Your task to perform on an android device: Go to notification settings Image 0: 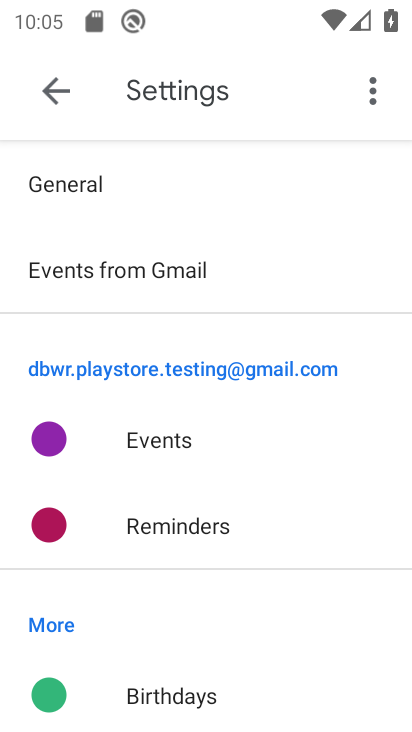
Step 0: press home button
Your task to perform on an android device: Go to notification settings Image 1: 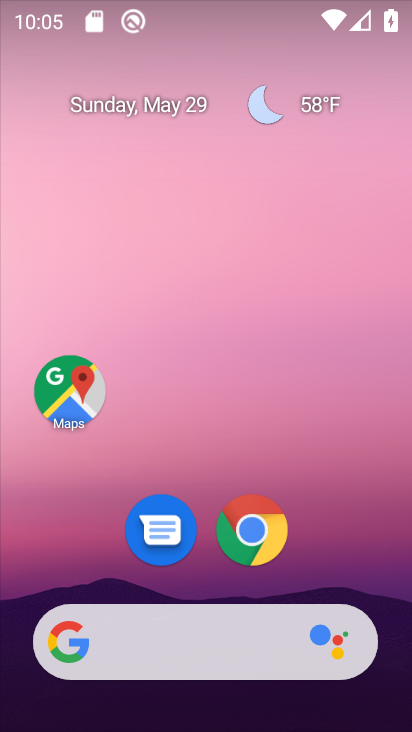
Step 1: drag from (166, 633) to (241, 262)
Your task to perform on an android device: Go to notification settings Image 2: 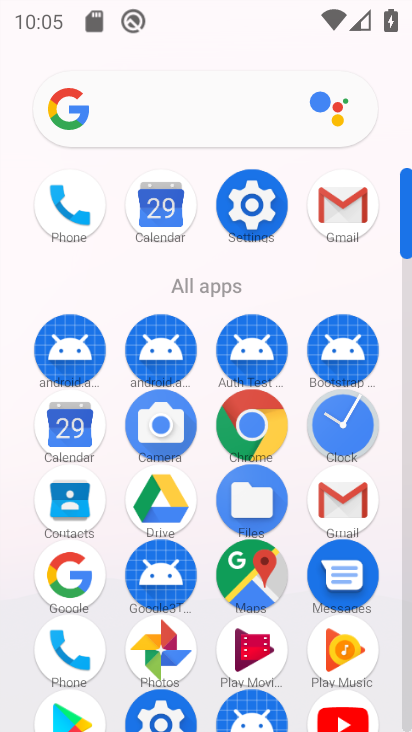
Step 2: click (250, 194)
Your task to perform on an android device: Go to notification settings Image 3: 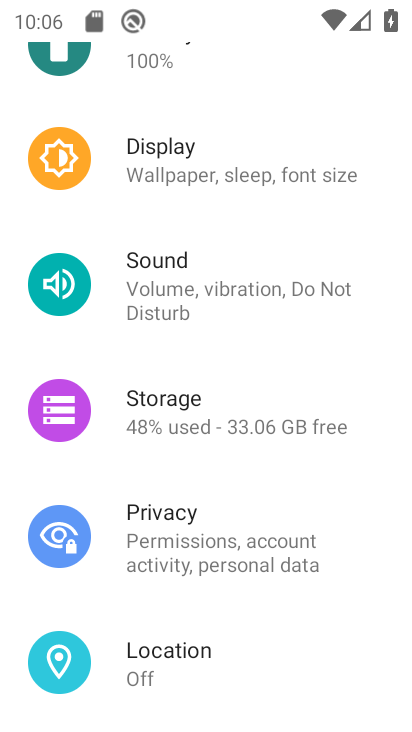
Step 3: drag from (196, 203) to (115, 633)
Your task to perform on an android device: Go to notification settings Image 4: 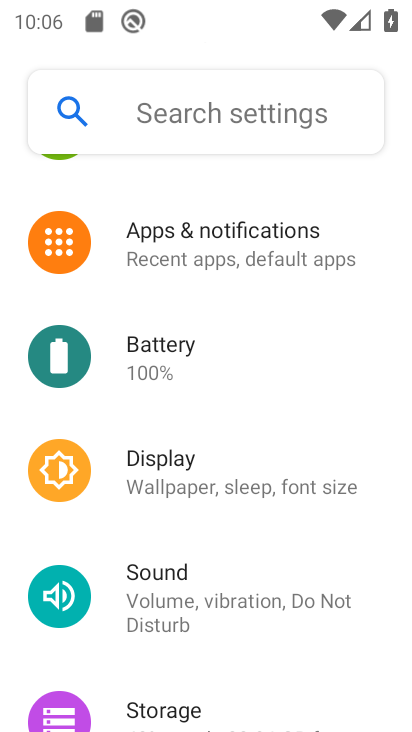
Step 4: click (236, 246)
Your task to perform on an android device: Go to notification settings Image 5: 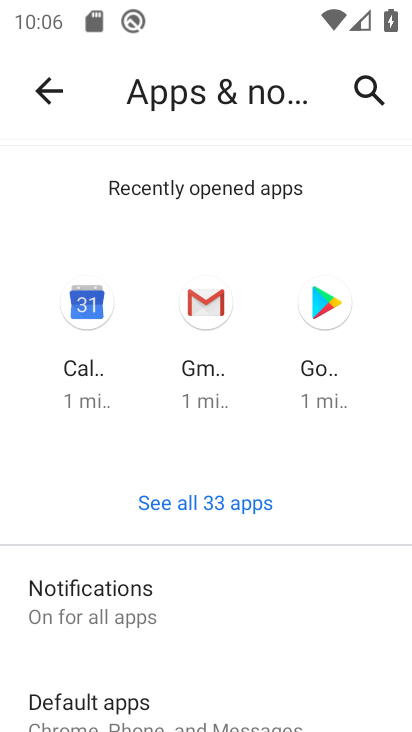
Step 5: task complete